Your task to perform on an android device: toggle data saver in the chrome app Image 0: 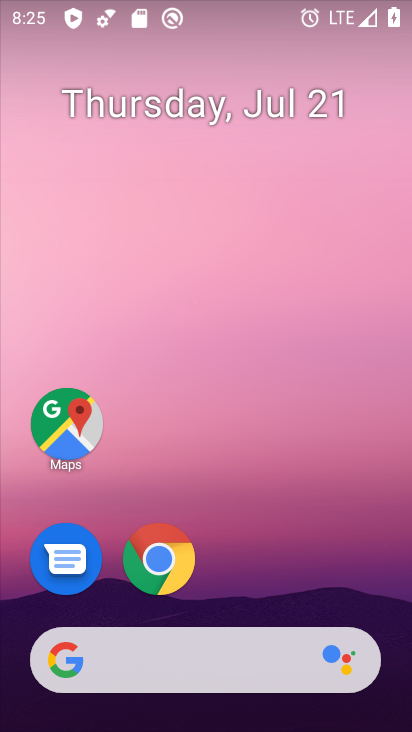
Step 0: drag from (365, 553) to (354, 107)
Your task to perform on an android device: toggle data saver in the chrome app Image 1: 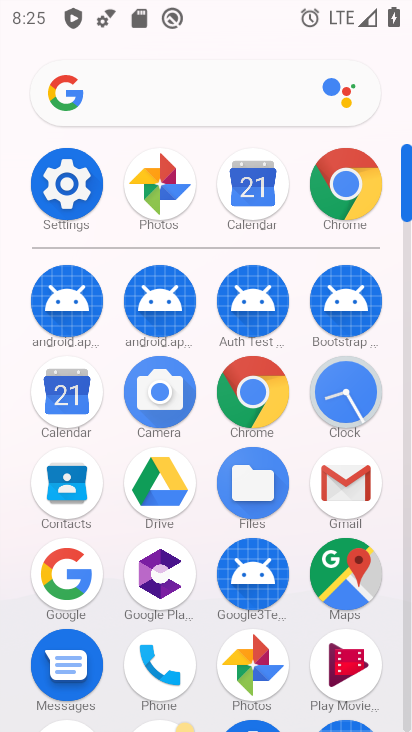
Step 1: click (359, 187)
Your task to perform on an android device: toggle data saver in the chrome app Image 2: 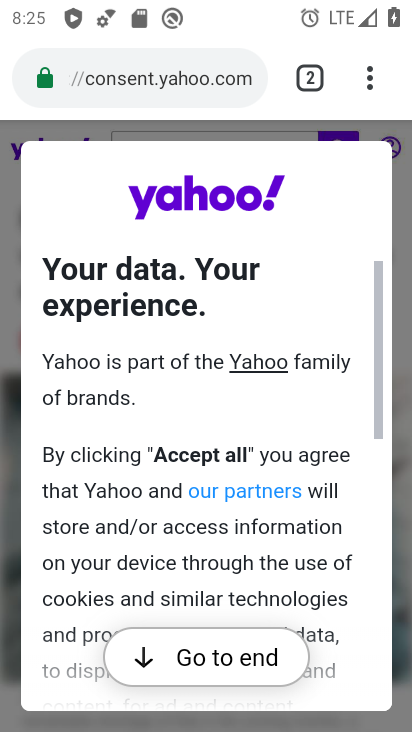
Step 2: click (370, 87)
Your task to perform on an android device: toggle data saver in the chrome app Image 3: 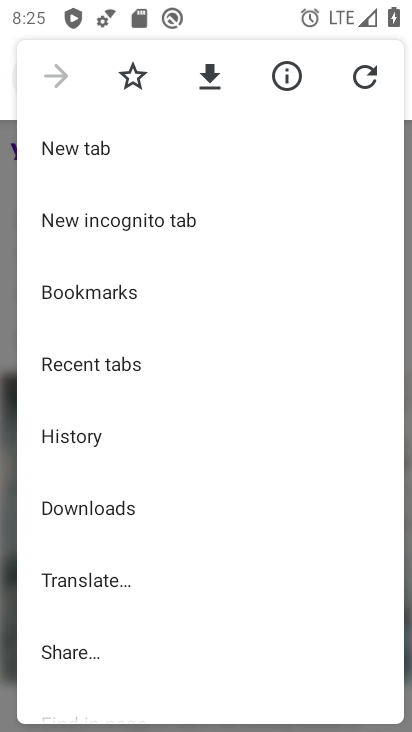
Step 3: drag from (314, 501) to (317, 445)
Your task to perform on an android device: toggle data saver in the chrome app Image 4: 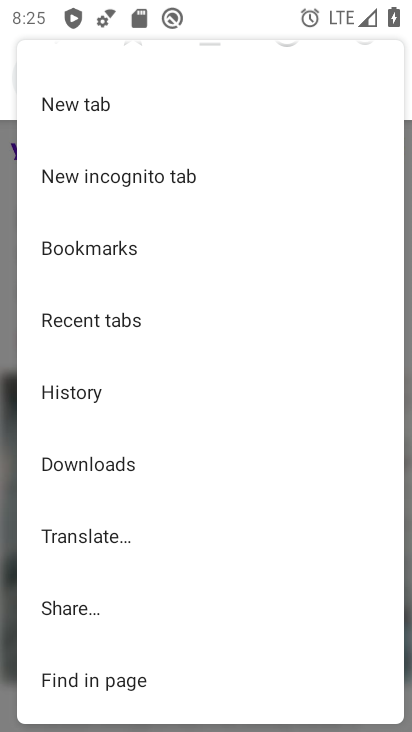
Step 4: drag from (308, 540) to (312, 484)
Your task to perform on an android device: toggle data saver in the chrome app Image 5: 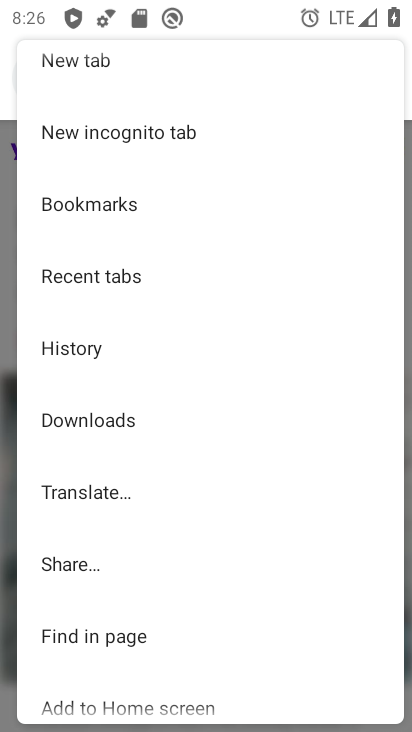
Step 5: drag from (298, 583) to (299, 517)
Your task to perform on an android device: toggle data saver in the chrome app Image 6: 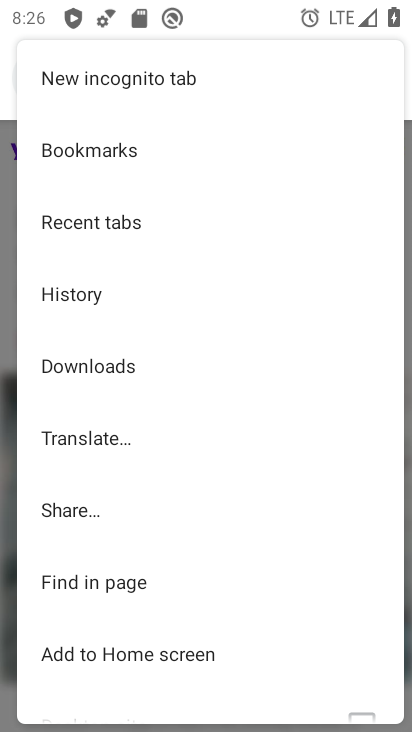
Step 6: drag from (289, 596) to (291, 491)
Your task to perform on an android device: toggle data saver in the chrome app Image 7: 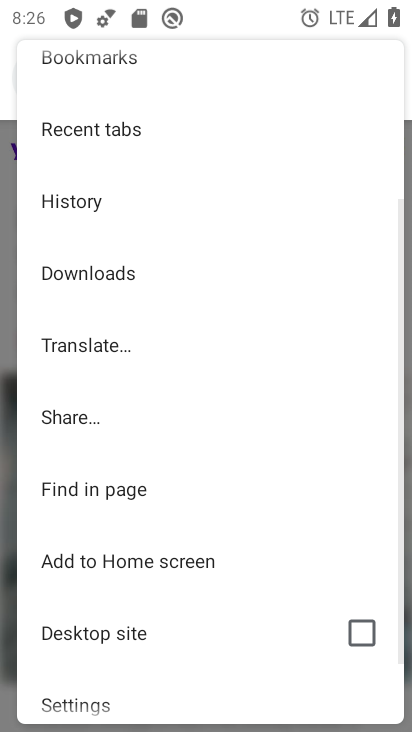
Step 7: drag from (278, 581) to (281, 409)
Your task to perform on an android device: toggle data saver in the chrome app Image 8: 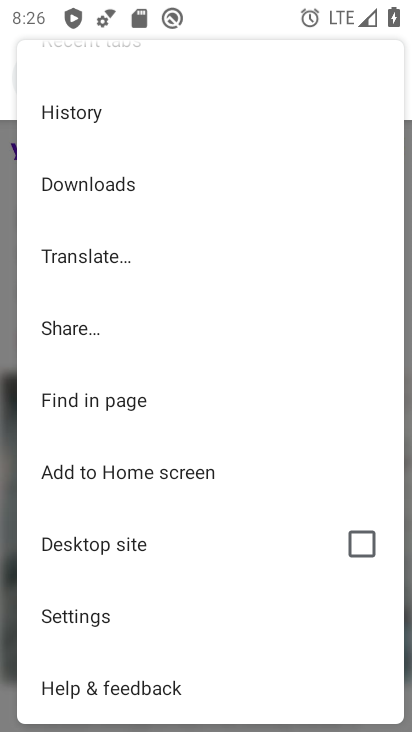
Step 8: click (117, 622)
Your task to perform on an android device: toggle data saver in the chrome app Image 9: 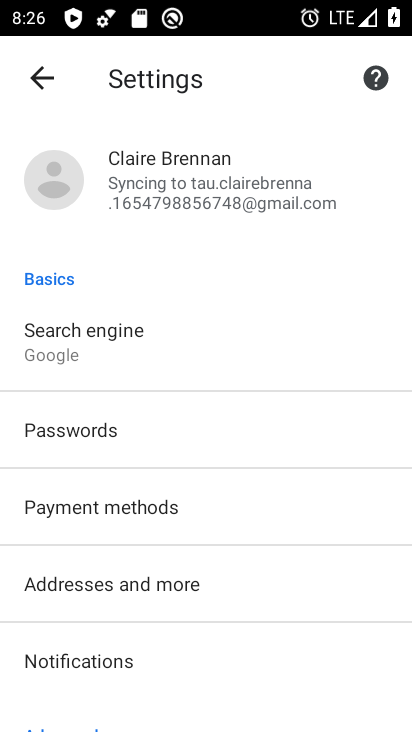
Step 9: drag from (350, 517) to (363, 445)
Your task to perform on an android device: toggle data saver in the chrome app Image 10: 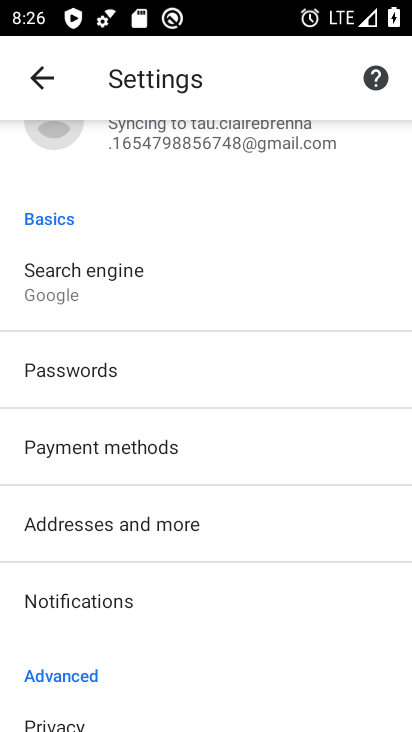
Step 10: drag from (350, 592) to (364, 500)
Your task to perform on an android device: toggle data saver in the chrome app Image 11: 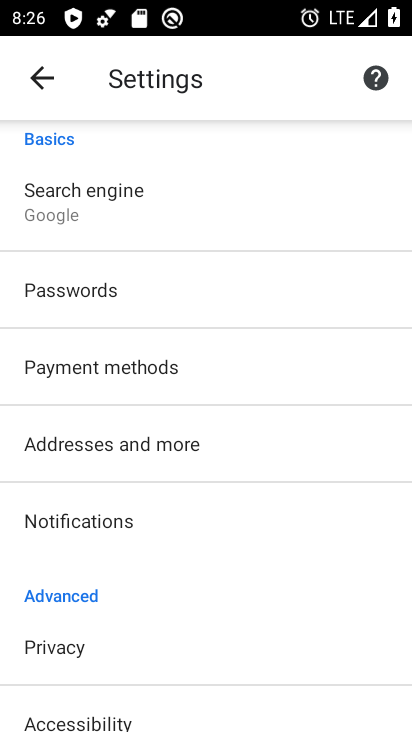
Step 11: drag from (351, 586) to (355, 531)
Your task to perform on an android device: toggle data saver in the chrome app Image 12: 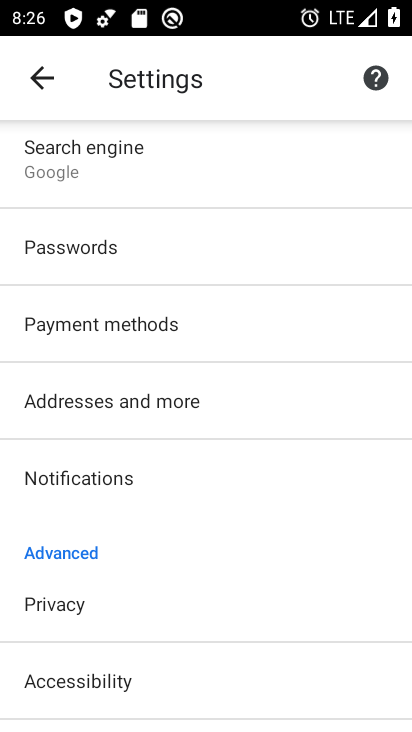
Step 12: drag from (344, 626) to (343, 547)
Your task to perform on an android device: toggle data saver in the chrome app Image 13: 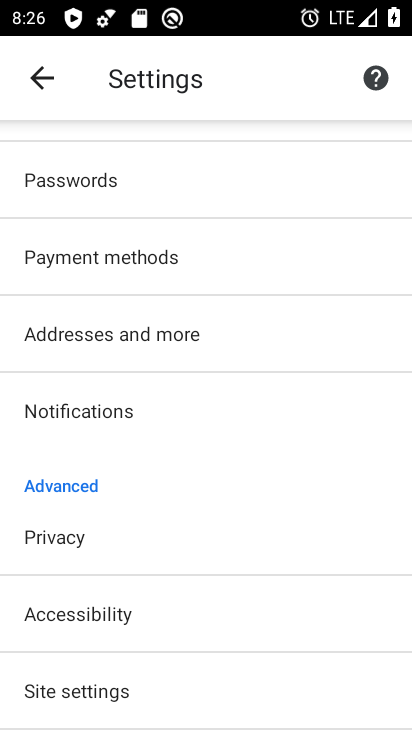
Step 13: drag from (322, 638) to (330, 568)
Your task to perform on an android device: toggle data saver in the chrome app Image 14: 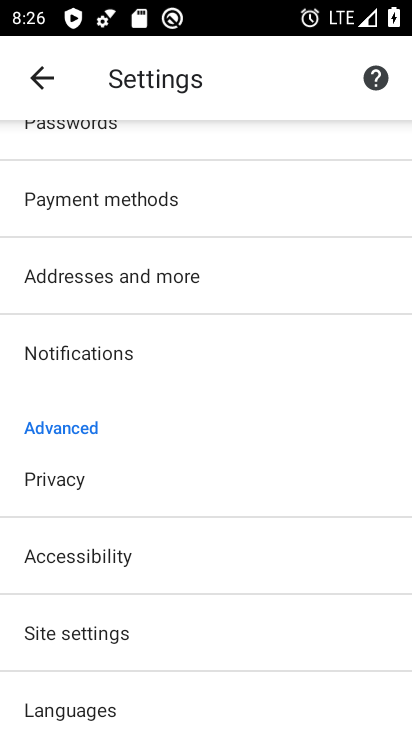
Step 14: drag from (315, 641) to (324, 566)
Your task to perform on an android device: toggle data saver in the chrome app Image 15: 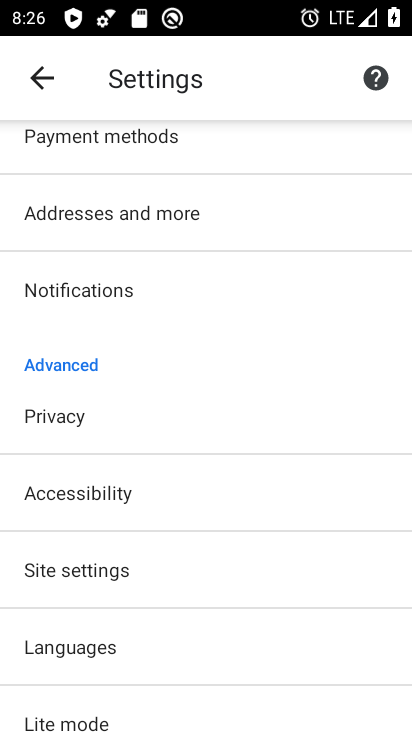
Step 15: drag from (316, 641) to (328, 552)
Your task to perform on an android device: toggle data saver in the chrome app Image 16: 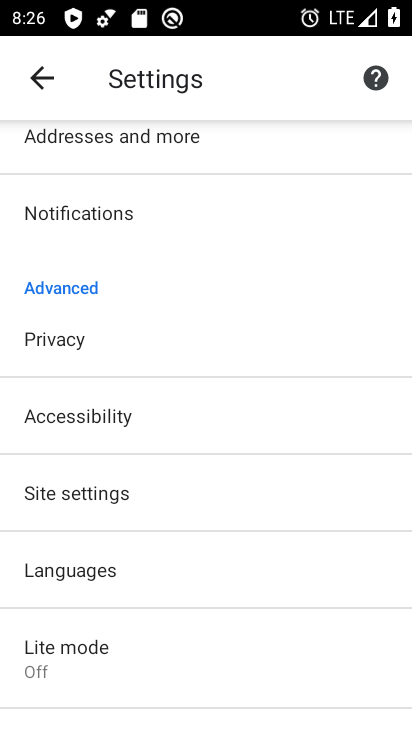
Step 16: drag from (311, 643) to (323, 435)
Your task to perform on an android device: toggle data saver in the chrome app Image 17: 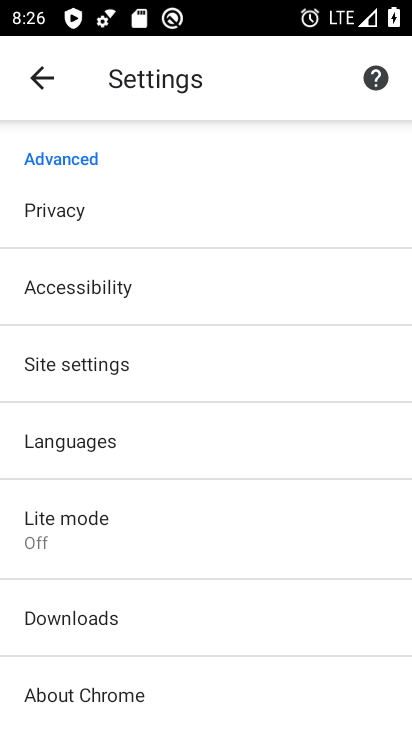
Step 17: click (175, 515)
Your task to perform on an android device: toggle data saver in the chrome app Image 18: 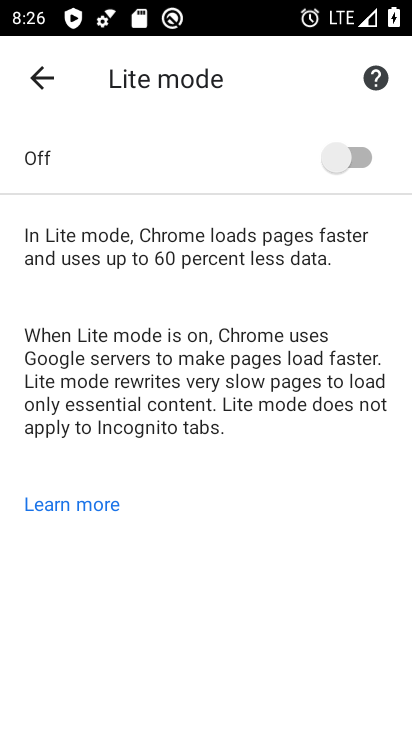
Step 18: click (329, 168)
Your task to perform on an android device: toggle data saver in the chrome app Image 19: 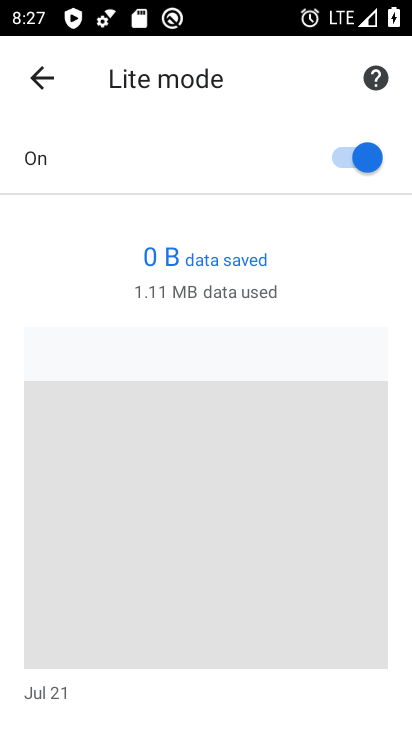
Step 19: task complete